Your task to perform on an android device: change the clock display to show seconds Image 0: 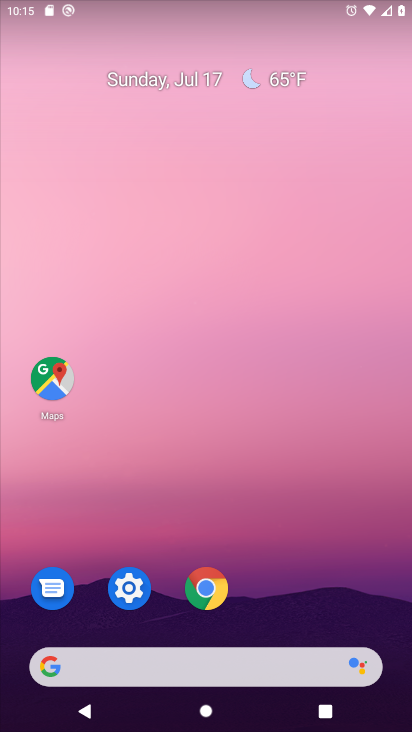
Step 0: drag from (287, 546) to (294, 61)
Your task to perform on an android device: change the clock display to show seconds Image 1: 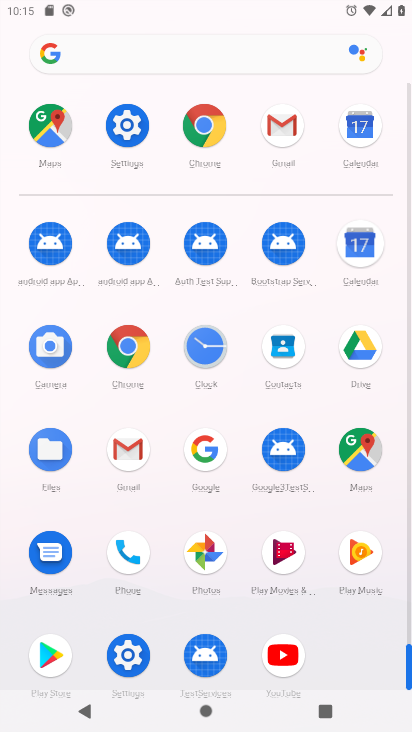
Step 1: click (200, 341)
Your task to perform on an android device: change the clock display to show seconds Image 2: 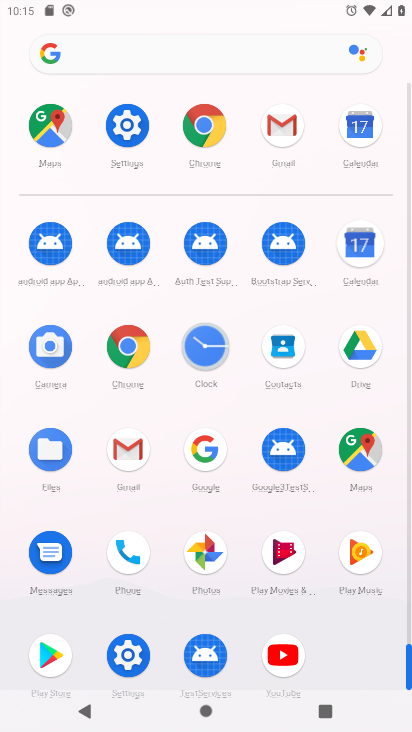
Step 2: click (199, 341)
Your task to perform on an android device: change the clock display to show seconds Image 3: 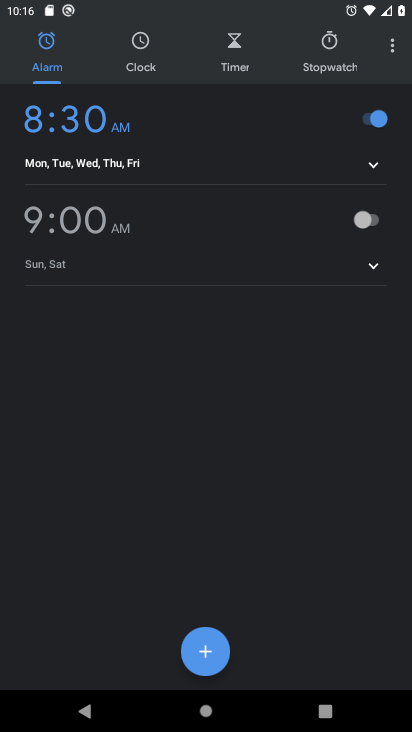
Step 3: click (391, 40)
Your task to perform on an android device: change the clock display to show seconds Image 4: 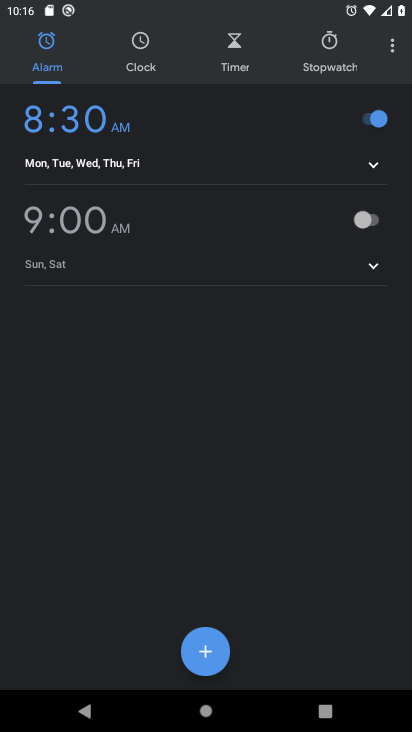
Step 4: click (390, 41)
Your task to perform on an android device: change the clock display to show seconds Image 5: 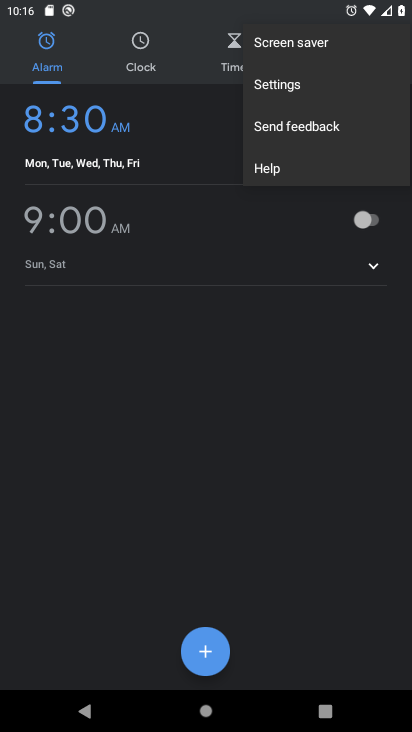
Step 5: click (390, 41)
Your task to perform on an android device: change the clock display to show seconds Image 6: 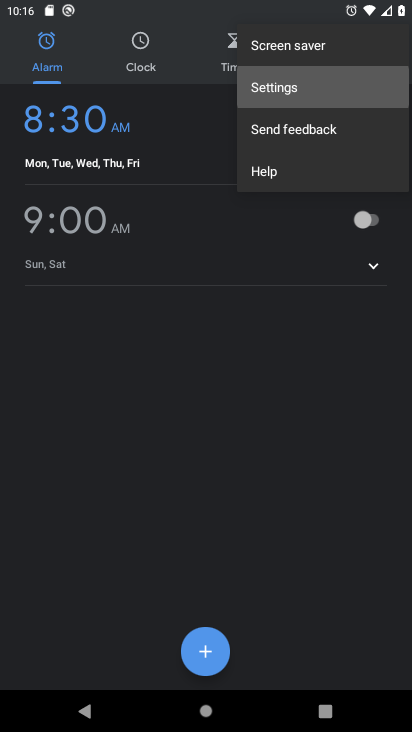
Step 6: click (387, 46)
Your task to perform on an android device: change the clock display to show seconds Image 7: 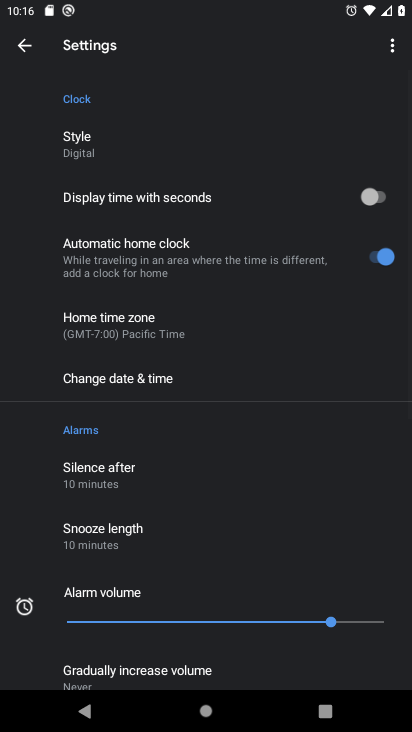
Step 7: click (384, 198)
Your task to perform on an android device: change the clock display to show seconds Image 8: 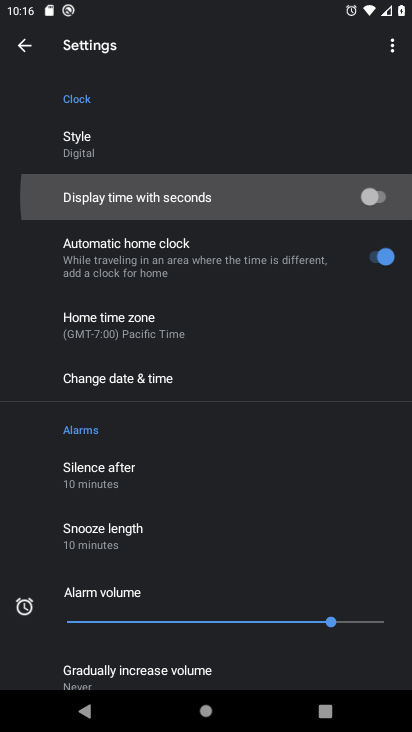
Step 8: click (375, 187)
Your task to perform on an android device: change the clock display to show seconds Image 9: 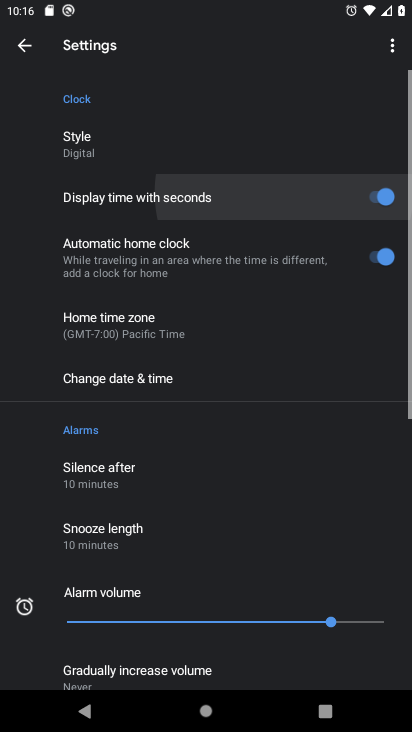
Step 9: click (376, 185)
Your task to perform on an android device: change the clock display to show seconds Image 10: 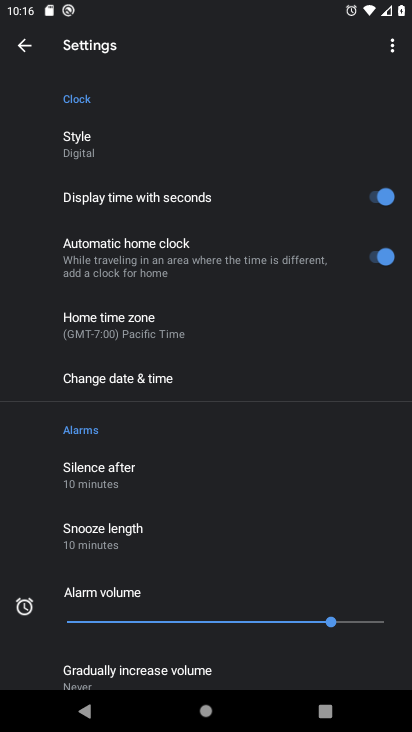
Step 10: task complete